Your task to perform on an android device: What's the weather? Image 0: 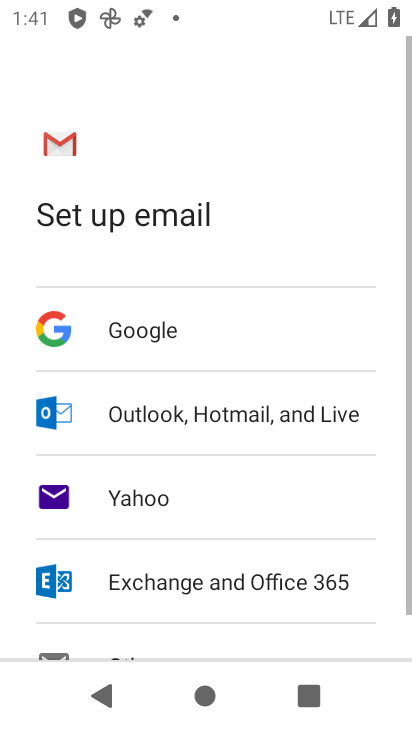
Step 0: press home button
Your task to perform on an android device: What's the weather? Image 1: 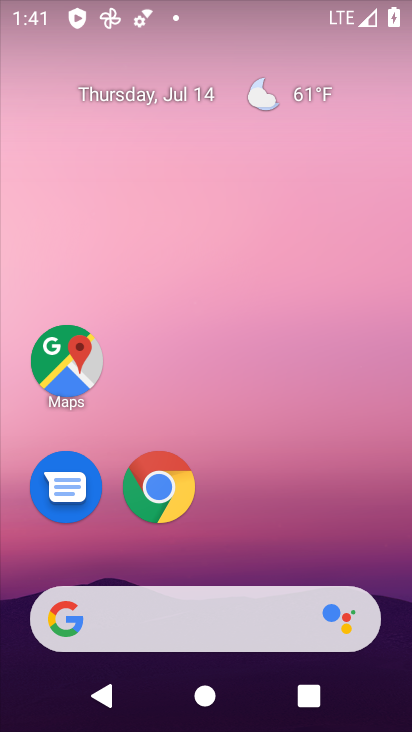
Step 1: click (227, 615)
Your task to perform on an android device: What's the weather? Image 2: 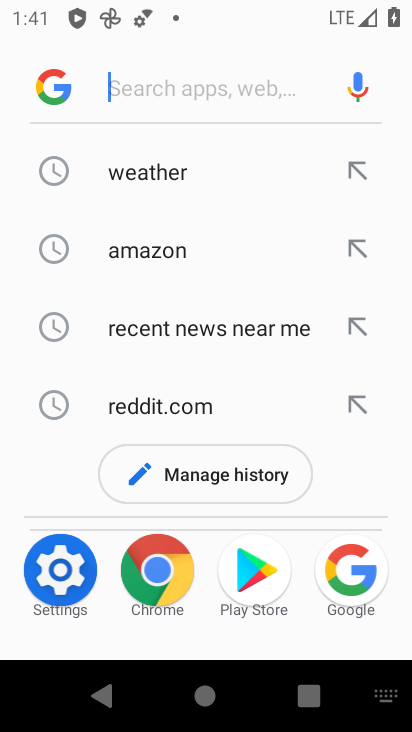
Step 2: click (168, 171)
Your task to perform on an android device: What's the weather? Image 3: 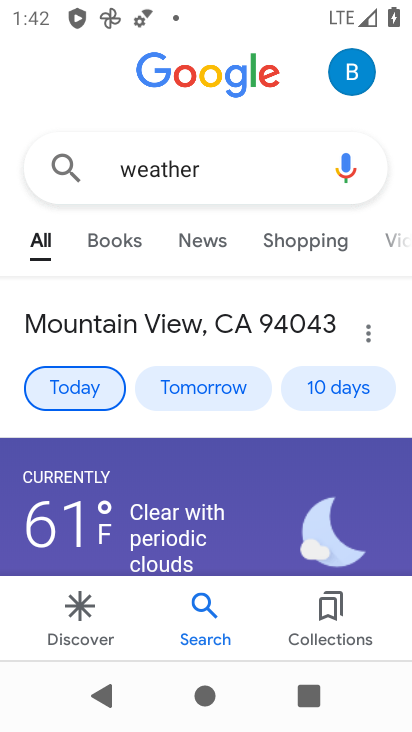
Step 3: task complete